Your task to perform on an android device: turn on location history Image 0: 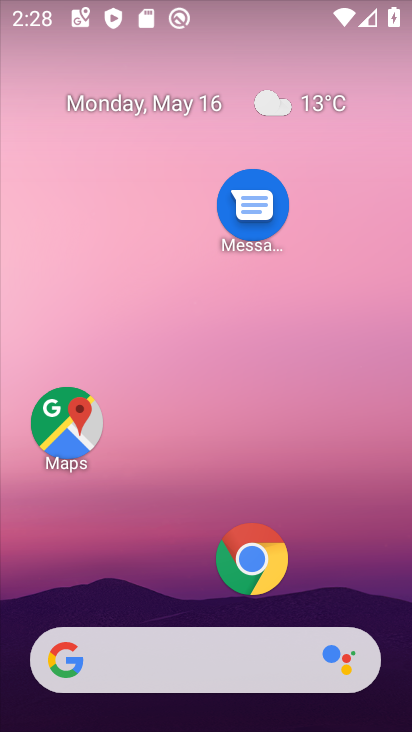
Step 0: drag from (176, 501) to (180, 223)
Your task to perform on an android device: turn on location history Image 1: 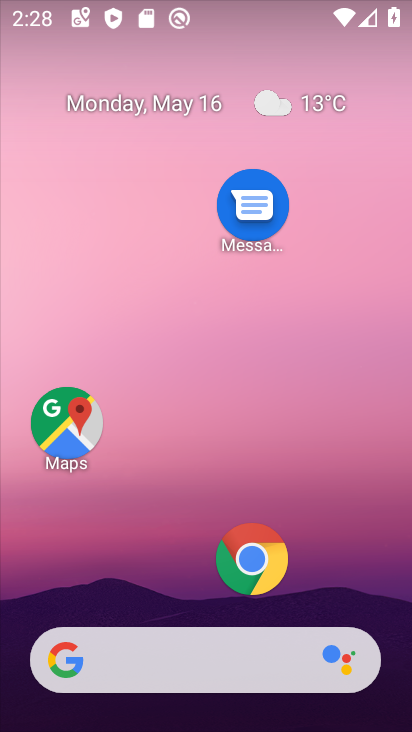
Step 1: drag from (90, 537) to (112, 211)
Your task to perform on an android device: turn on location history Image 2: 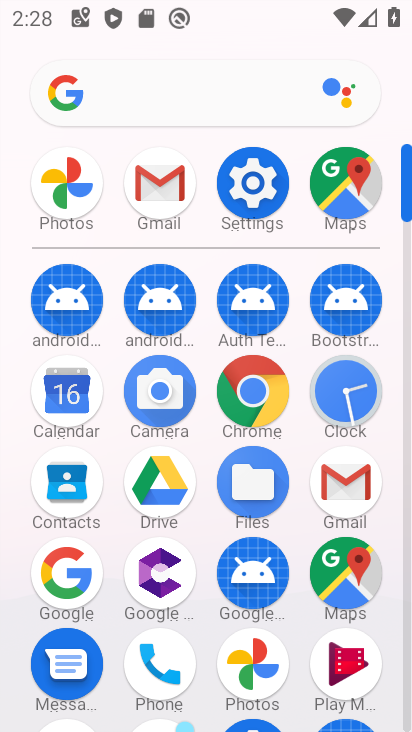
Step 2: click (254, 193)
Your task to perform on an android device: turn on location history Image 3: 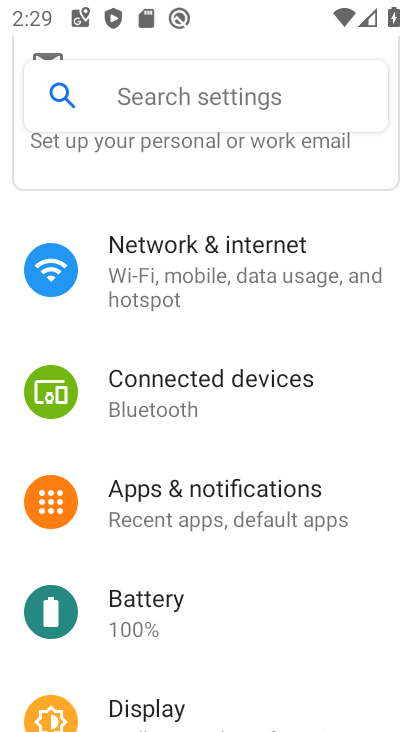
Step 3: drag from (221, 333) to (252, 232)
Your task to perform on an android device: turn on location history Image 4: 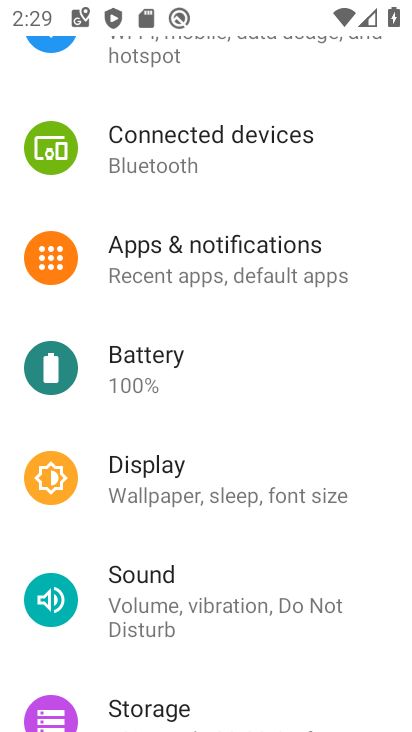
Step 4: drag from (214, 512) to (221, 136)
Your task to perform on an android device: turn on location history Image 5: 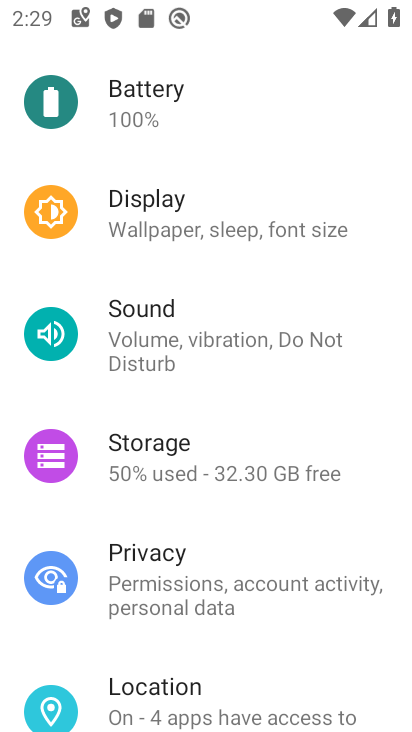
Step 5: drag from (235, 548) to (235, 263)
Your task to perform on an android device: turn on location history Image 6: 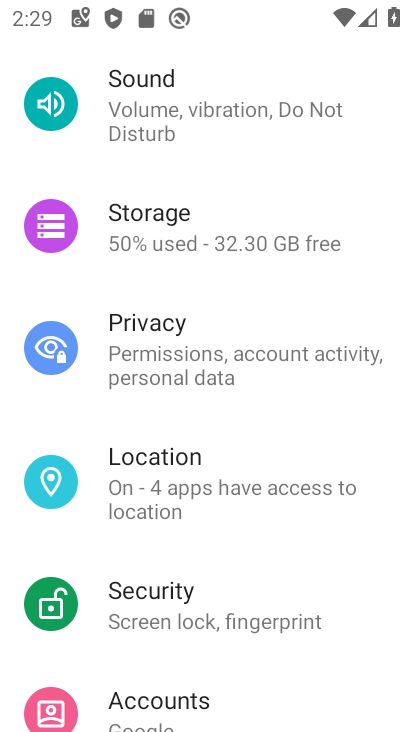
Step 6: click (151, 478)
Your task to perform on an android device: turn on location history Image 7: 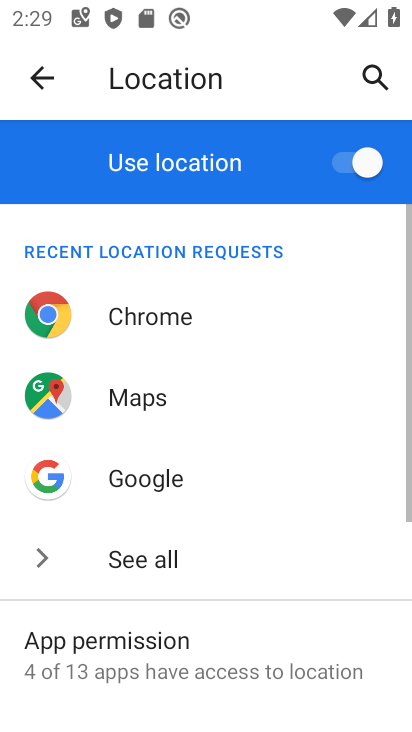
Step 7: task complete